Your task to perform on an android device: Open eBay Image 0: 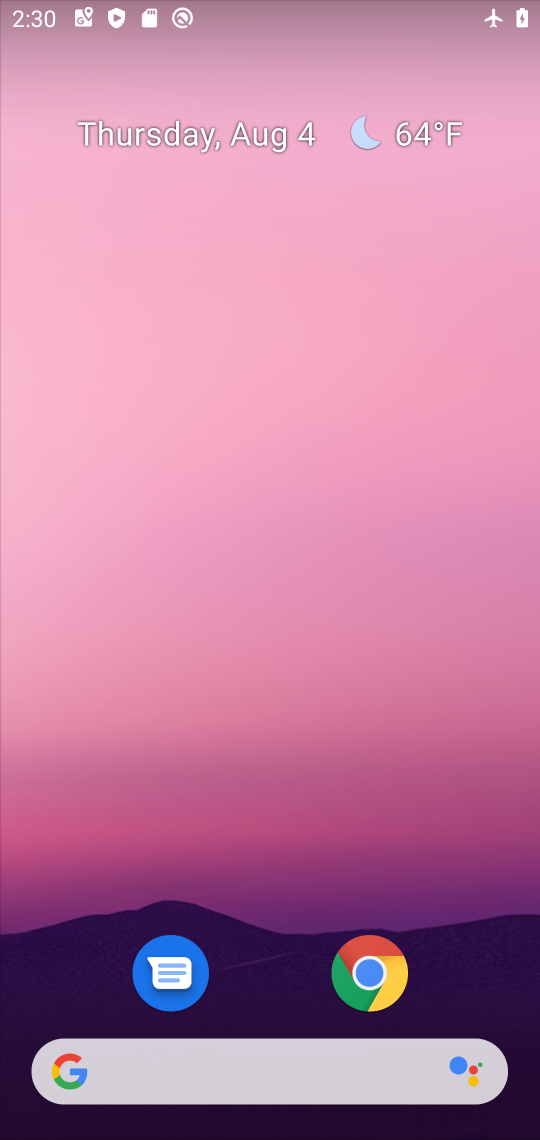
Step 0: click (338, 972)
Your task to perform on an android device: Open eBay Image 1: 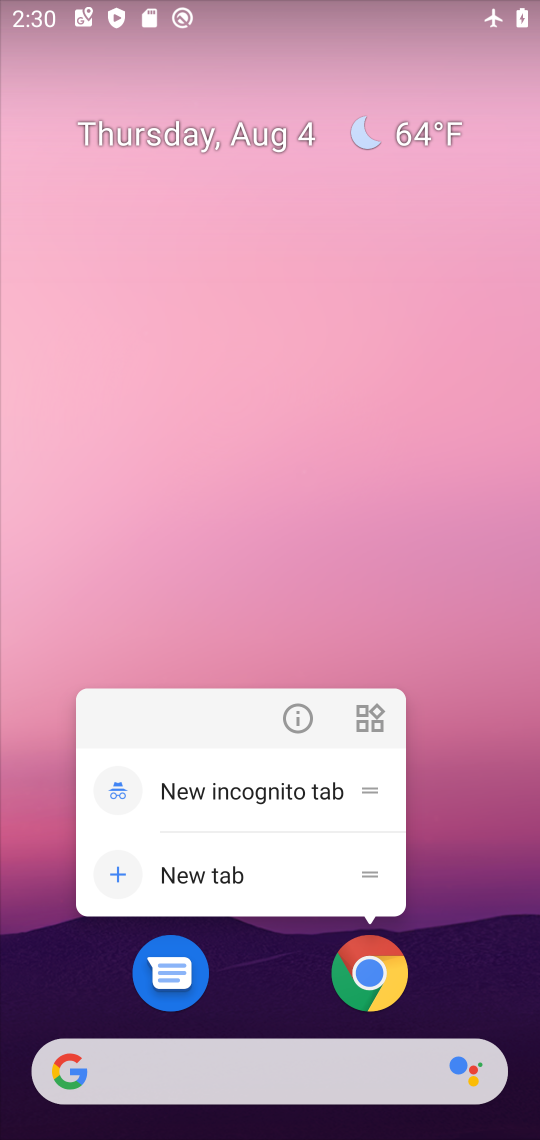
Step 1: click (378, 956)
Your task to perform on an android device: Open eBay Image 2: 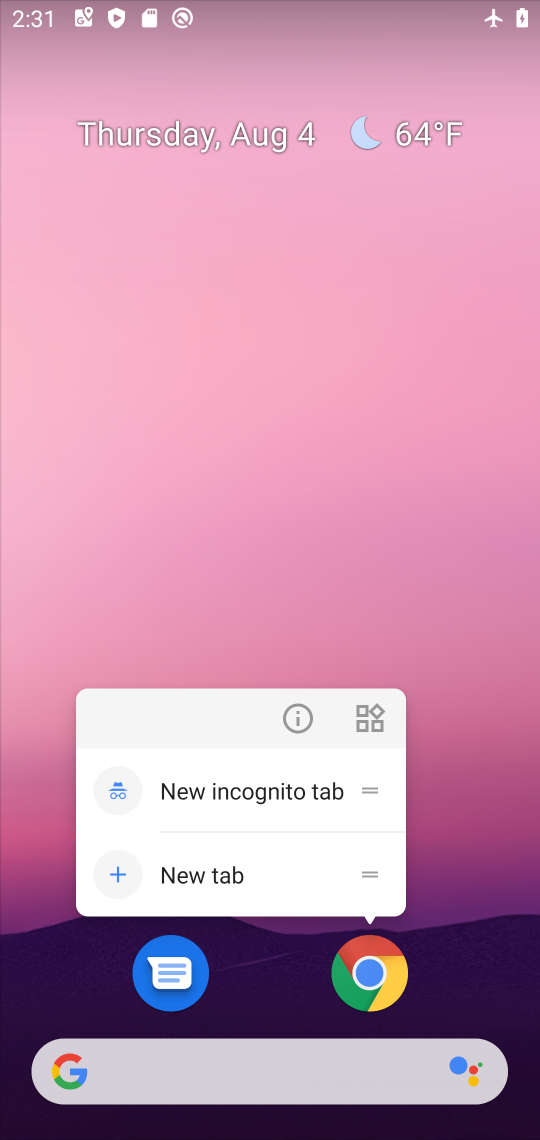
Step 2: click (387, 979)
Your task to perform on an android device: Open eBay Image 3: 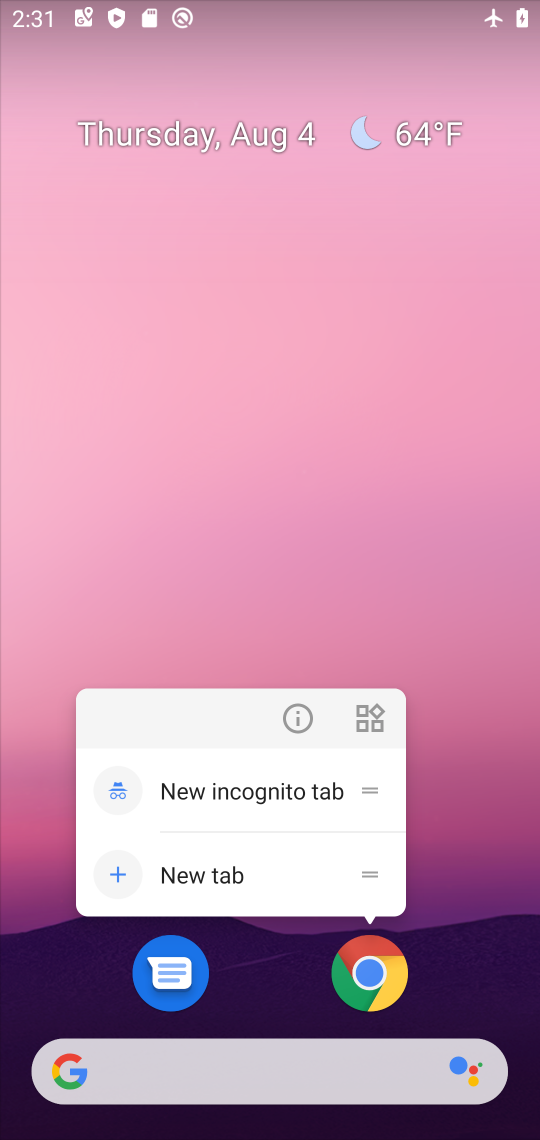
Step 3: click (375, 986)
Your task to perform on an android device: Open eBay Image 4: 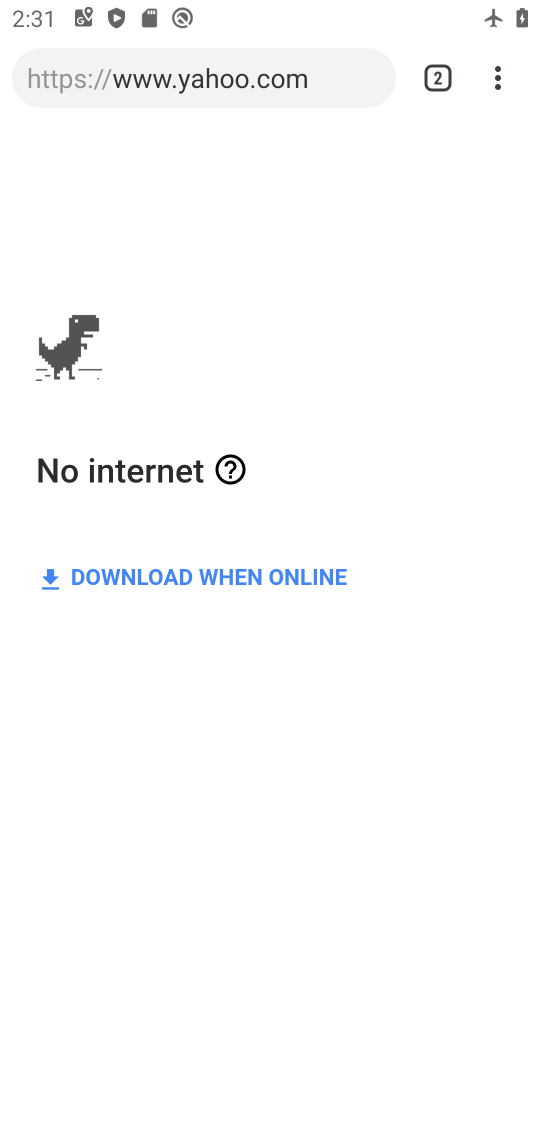
Step 4: click (427, 73)
Your task to perform on an android device: Open eBay Image 5: 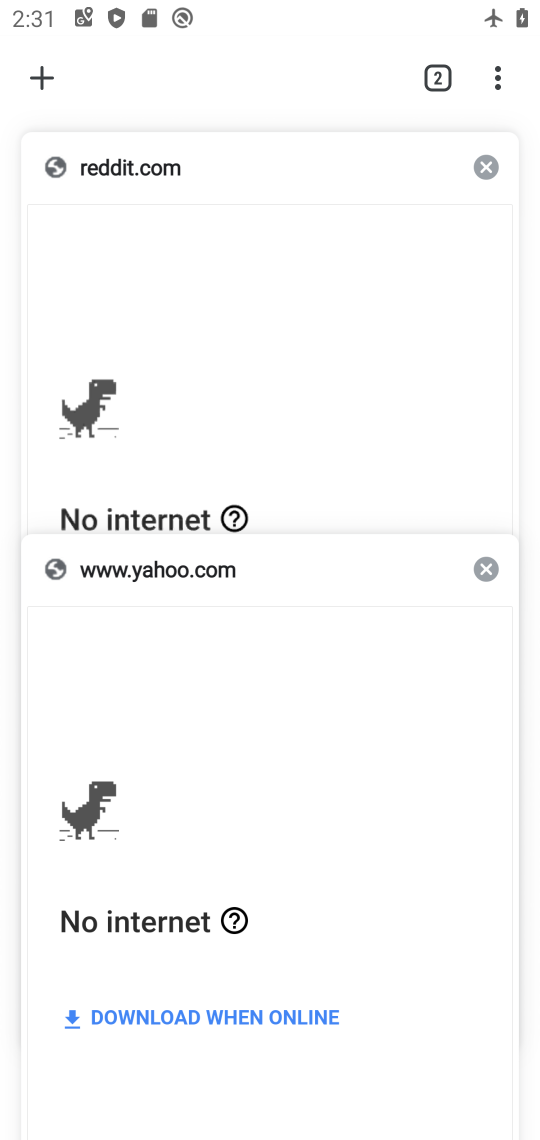
Step 5: click (58, 75)
Your task to perform on an android device: Open eBay Image 6: 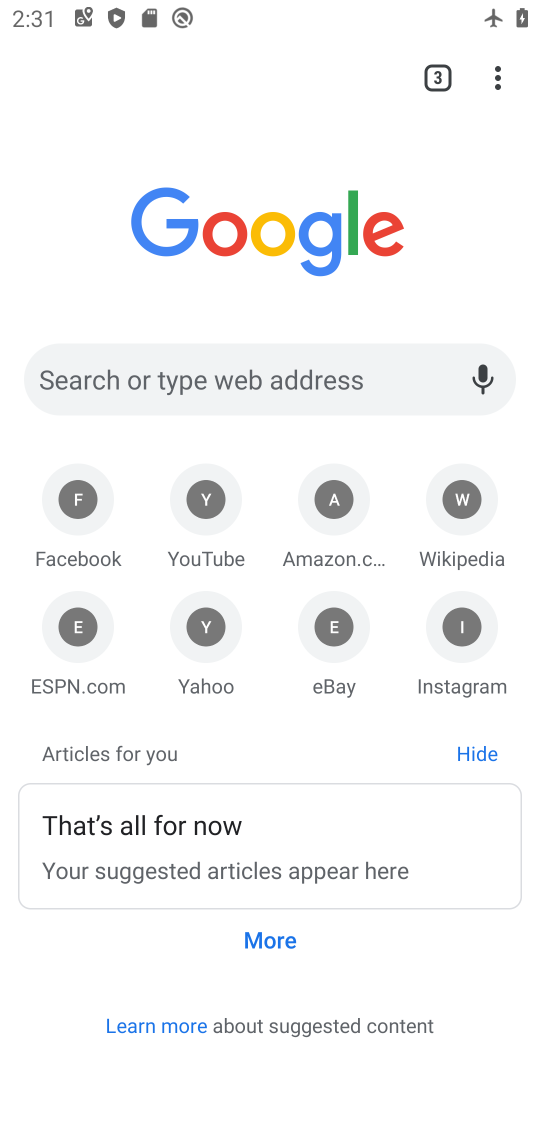
Step 6: click (336, 628)
Your task to perform on an android device: Open eBay Image 7: 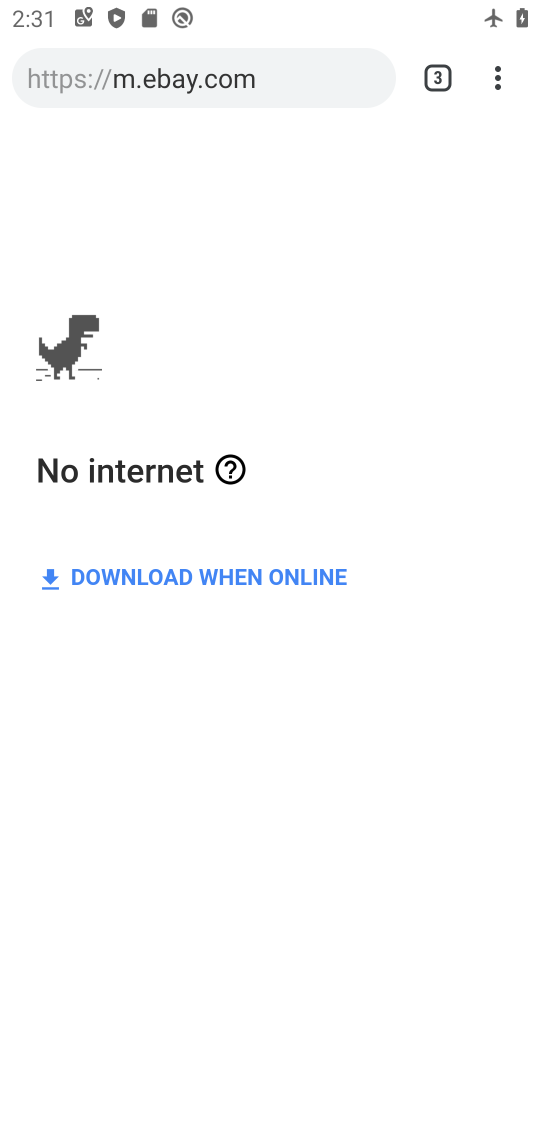
Step 7: task complete